Your task to perform on an android device: turn notification dots off Image 0: 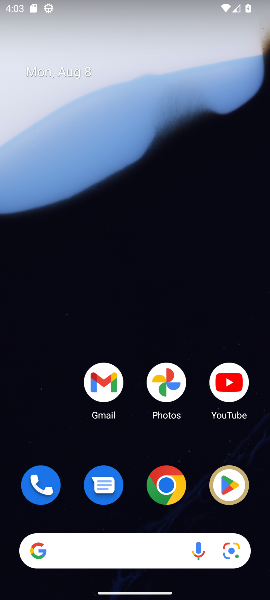
Step 0: drag from (177, 524) to (138, 141)
Your task to perform on an android device: turn notification dots off Image 1: 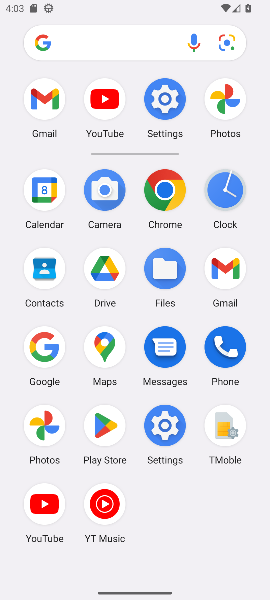
Step 1: click (165, 111)
Your task to perform on an android device: turn notification dots off Image 2: 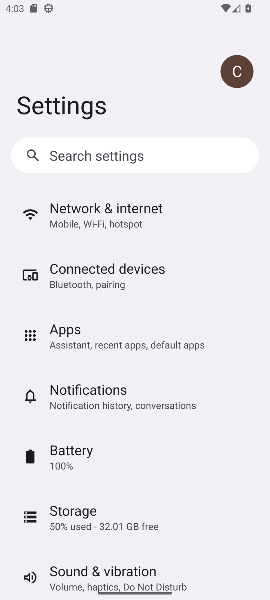
Step 2: drag from (132, 497) to (112, 192)
Your task to perform on an android device: turn notification dots off Image 3: 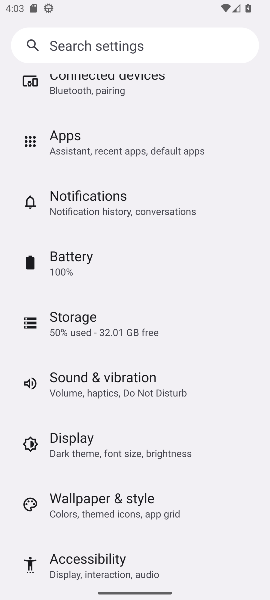
Step 3: drag from (128, 392) to (139, 133)
Your task to perform on an android device: turn notification dots off Image 4: 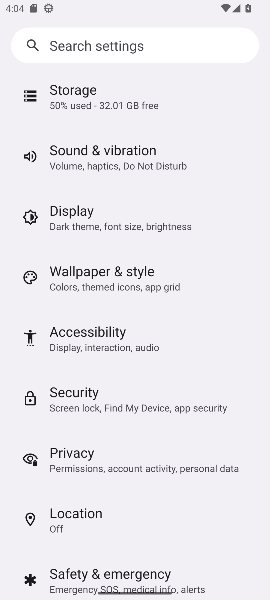
Step 4: drag from (114, 493) to (109, 218)
Your task to perform on an android device: turn notification dots off Image 5: 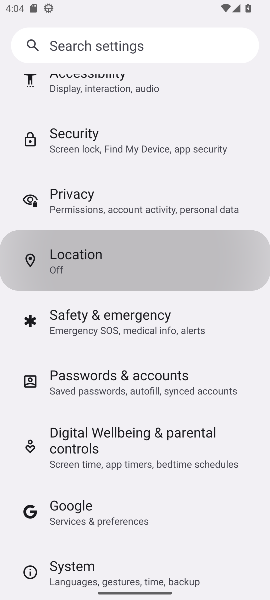
Step 5: drag from (205, 459) to (192, 91)
Your task to perform on an android device: turn notification dots off Image 6: 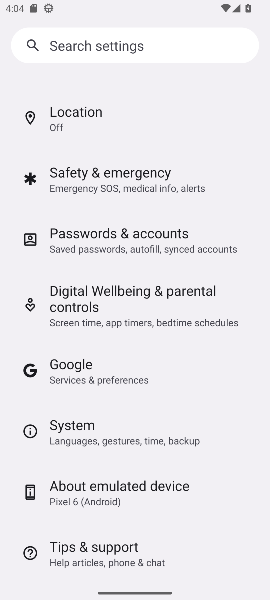
Step 6: drag from (195, 404) to (170, 117)
Your task to perform on an android device: turn notification dots off Image 7: 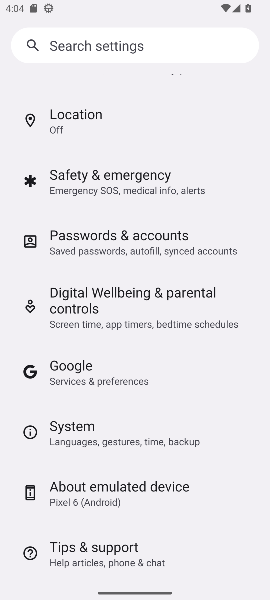
Step 7: drag from (111, 513) to (88, 287)
Your task to perform on an android device: turn notification dots off Image 8: 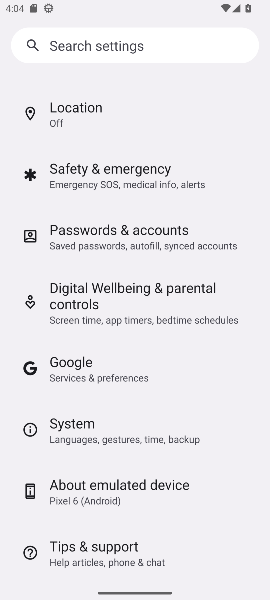
Step 8: drag from (88, 180) to (104, 377)
Your task to perform on an android device: turn notification dots off Image 9: 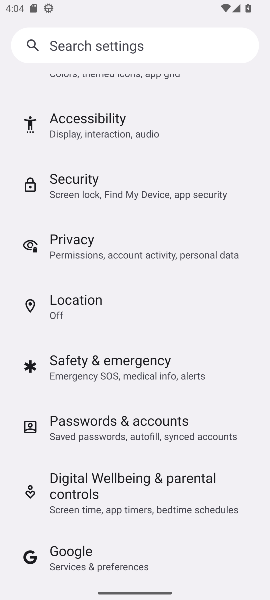
Step 9: drag from (103, 207) to (104, 507)
Your task to perform on an android device: turn notification dots off Image 10: 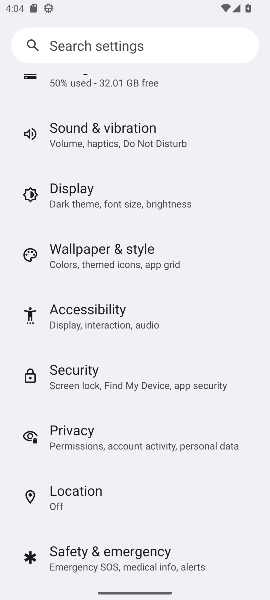
Step 10: drag from (107, 264) to (122, 510)
Your task to perform on an android device: turn notification dots off Image 11: 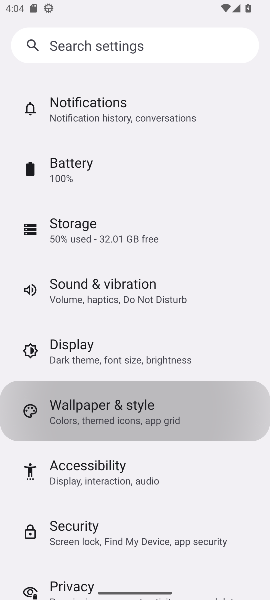
Step 11: drag from (95, 313) to (95, 470)
Your task to perform on an android device: turn notification dots off Image 12: 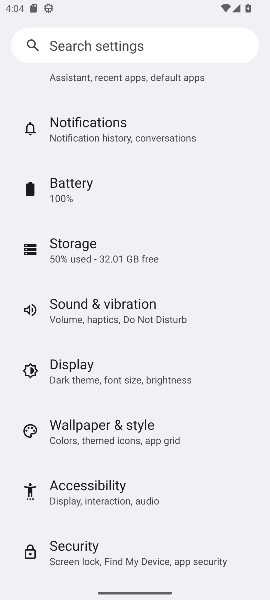
Step 12: click (78, 135)
Your task to perform on an android device: turn notification dots off Image 13: 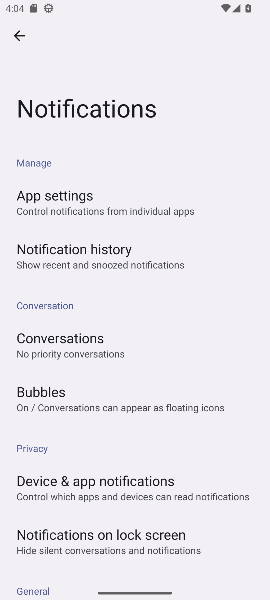
Step 13: drag from (114, 436) to (128, 82)
Your task to perform on an android device: turn notification dots off Image 14: 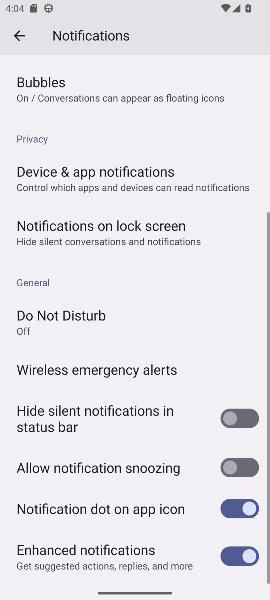
Step 14: drag from (156, 388) to (156, 250)
Your task to perform on an android device: turn notification dots off Image 15: 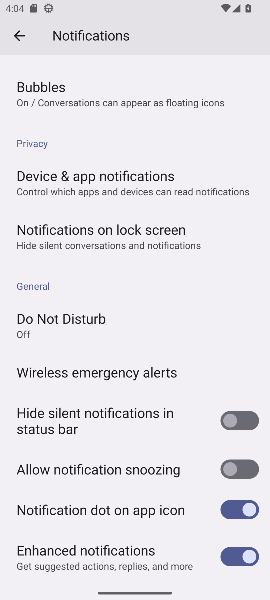
Step 15: drag from (170, 455) to (161, 255)
Your task to perform on an android device: turn notification dots off Image 16: 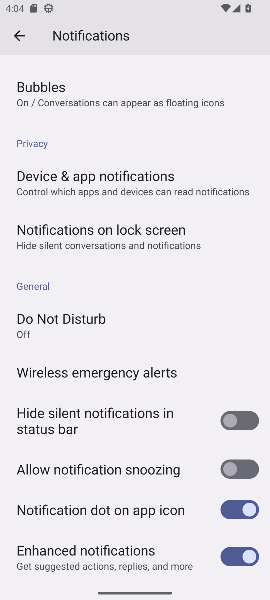
Step 16: drag from (165, 424) to (155, 261)
Your task to perform on an android device: turn notification dots off Image 17: 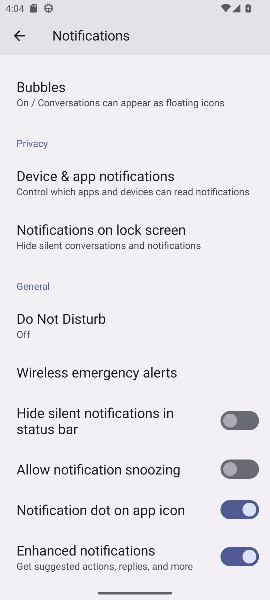
Step 17: click (246, 507)
Your task to perform on an android device: turn notification dots off Image 18: 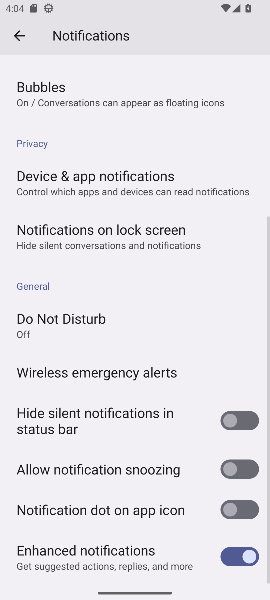
Step 18: task complete